Your task to perform on an android device: check data usage Image 0: 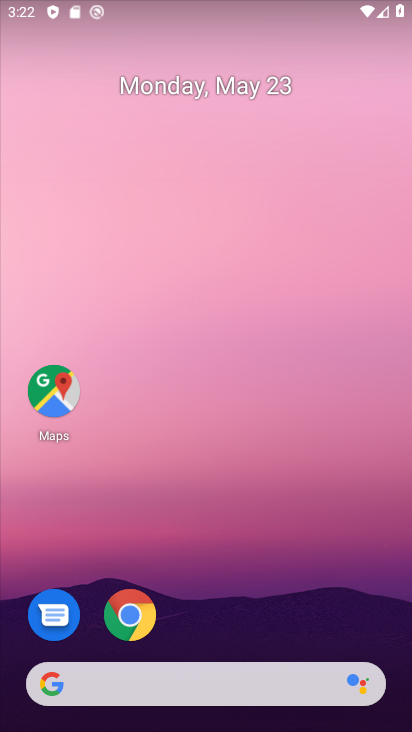
Step 0: drag from (372, 583) to (358, 129)
Your task to perform on an android device: check data usage Image 1: 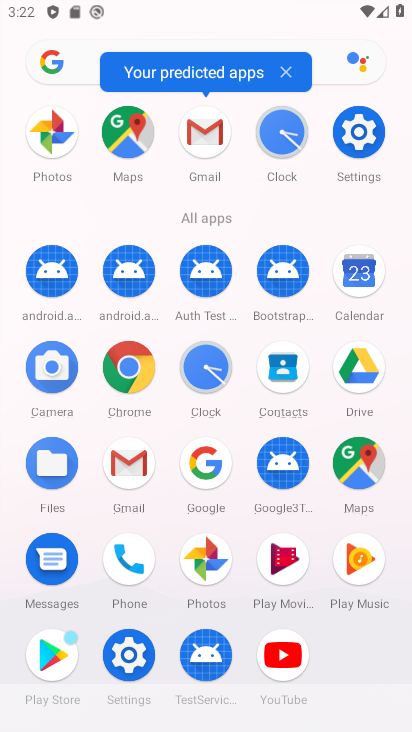
Step 1: click (135, 663)
Your task to perform on an android device: check data usage Image 2: 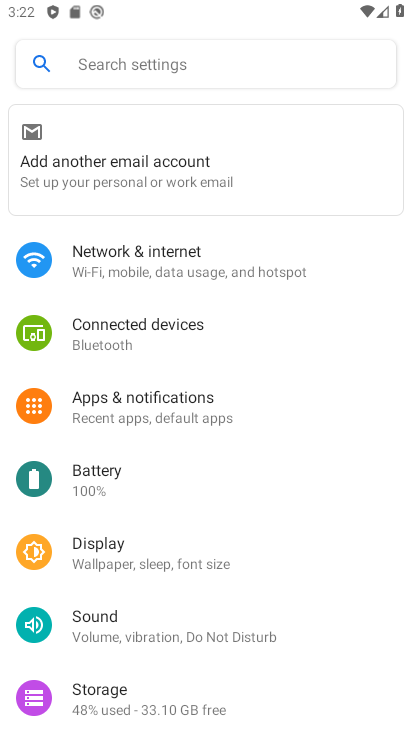
Step 2: drag from (358, 259) to (347, 414)
Your task to perform on an android device: check data usage Image 3: 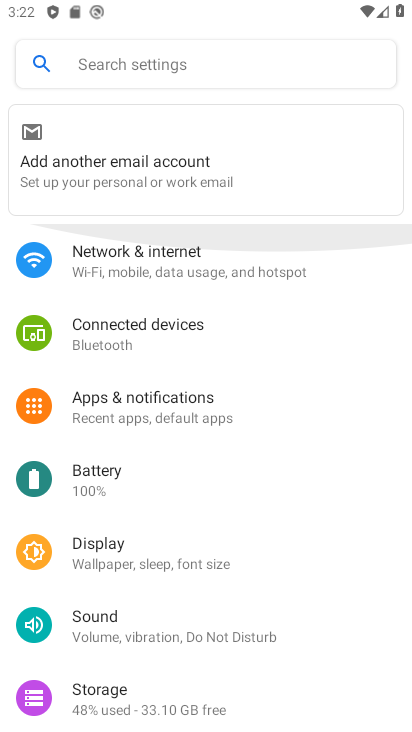
Step 3: drag from (351, 566) to (341, 420)
Your task to perform on an android device: check data usage Image 4: 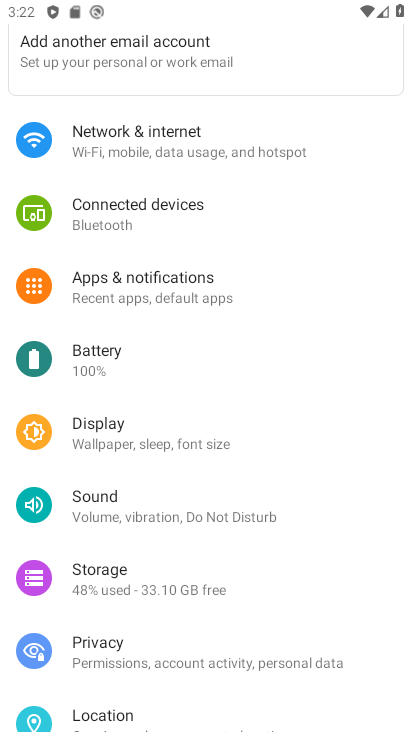
Step 4: drag from (374, 560) to (354, 405)
Your task to perform on an android device: check data usage Image 5: 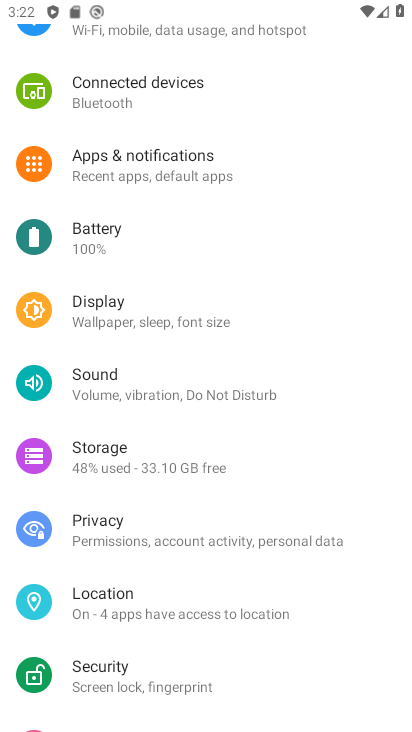
Step 5: drag from (340, 622) to (343, 505)
Your task to perform on an android device: check data usage Image 6: 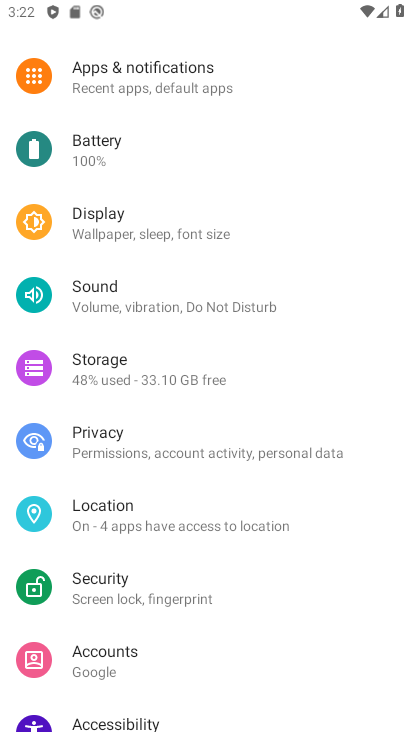
Step 6: drag from (338, 644) to (340, 544)
Your task to perform on an android device: check data usage Image 7: 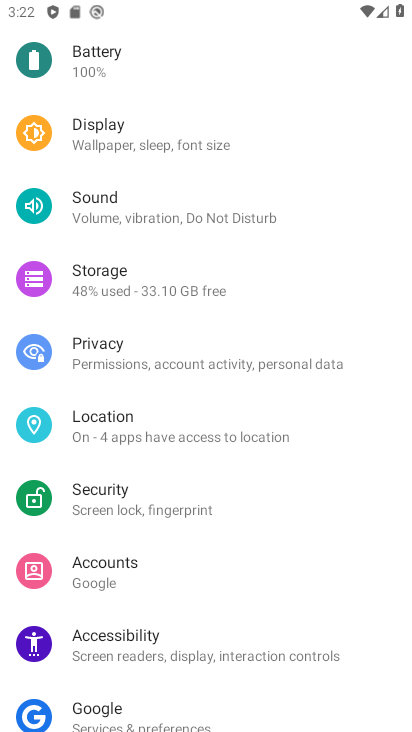
Step 7: drag from (376, 650) to (376, 505)
Your task to perform on an android device: check data usage Image 8: 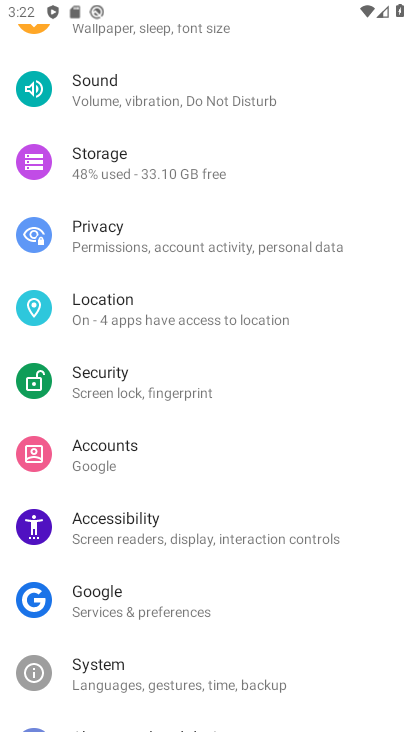
Step 8: drag from (361, 611) to (366, 478)
Your task to perform on an android device: check data usage Image 9: 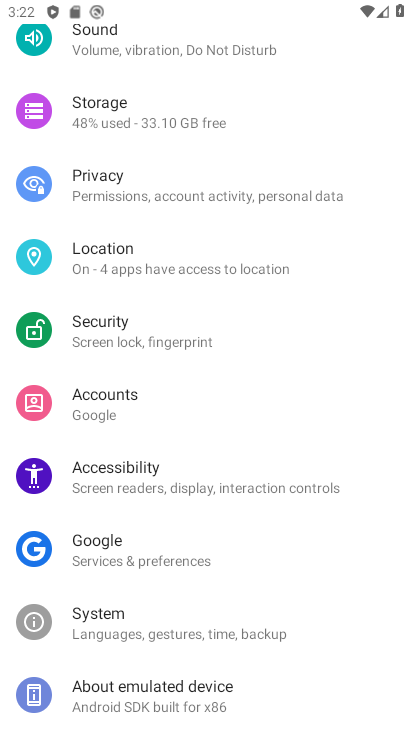
Step 9: drag from (350, 620) to (344, 451)
Your task to perform on an android device: check data usage Image 10: 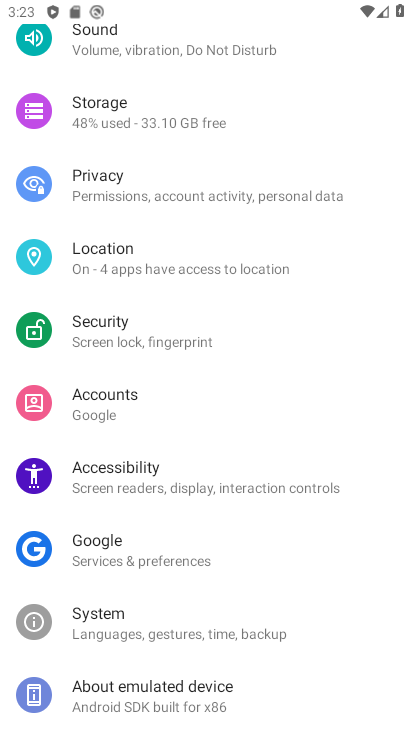
Step 10: drag from (354, 307) to (333, 459)
Your task to perform on an android device: check data usage Image 11: 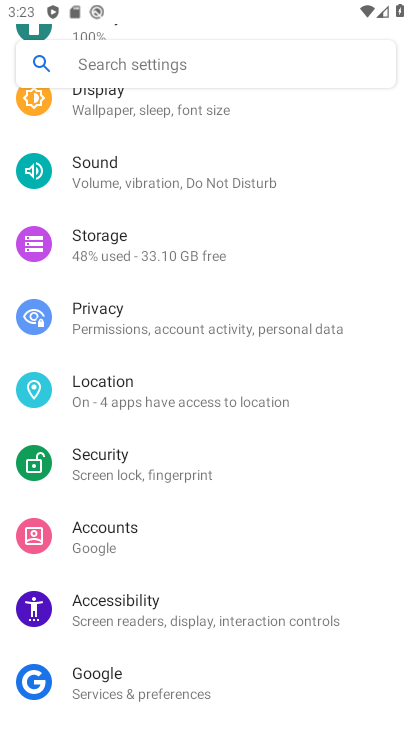
Step 11: drag from (325, 256) to (332, 405)
Your task to perform on an android device: check data usage Image 12: 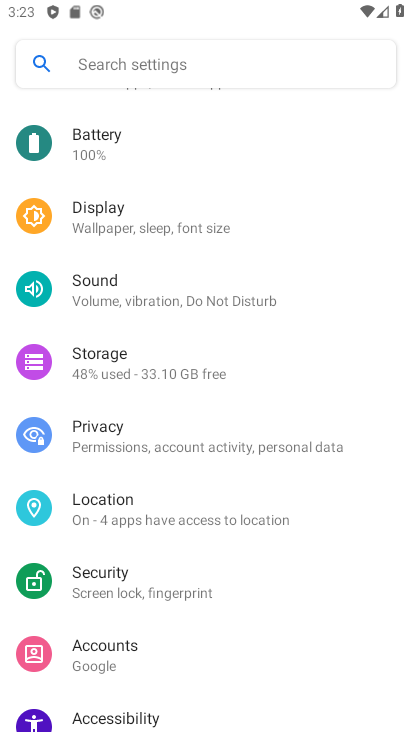
Step 12: drag from (315, 213) to (298, 377)
Your task to perform on an android device: check data usage Image 13: 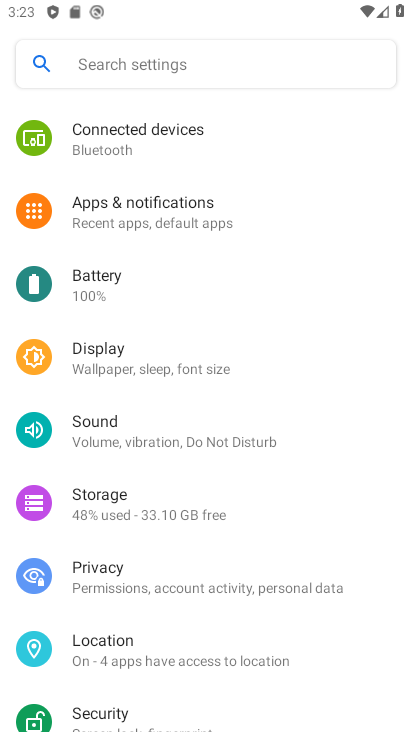
Step 13: click (224, 213)
Your task to perform on an android device: check data usage Image 14: 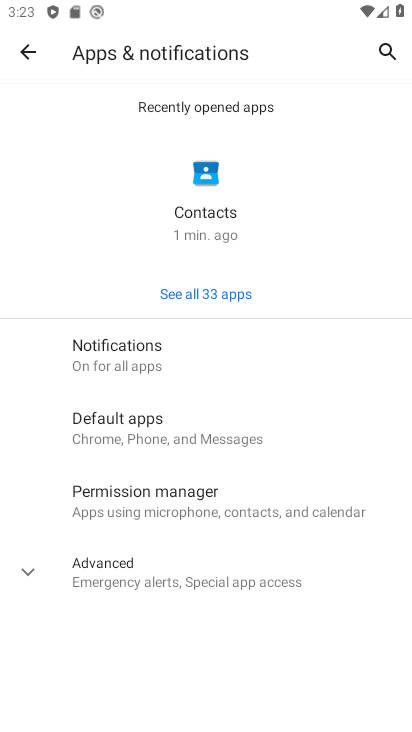
Step 14: press back button
Your task to perform on an android device: check data usage Image 15: 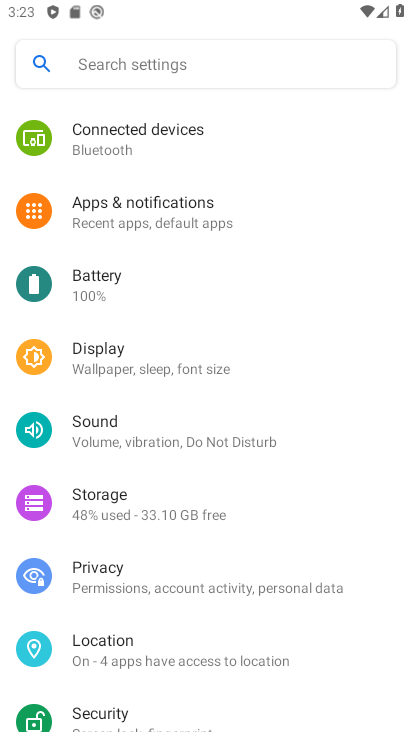
Step 15: drag from (346, 241) to (325, 420)
Your task to perform on an android device: check data usage Image 16: 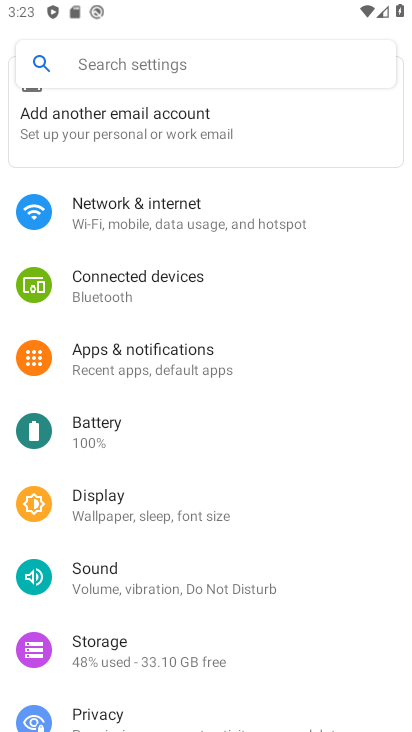
Step 16: click (252, 227)
Your task to perform on an android device: check data usage Image 17: 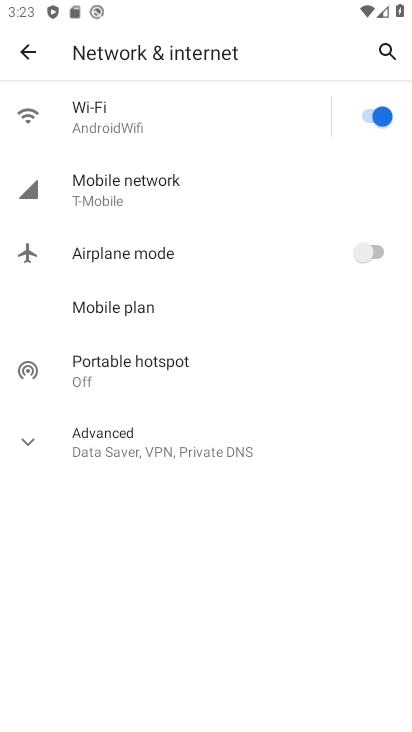
Step 17: click (159, 187)
Your task to perform on an android device: check data usage Image 18: 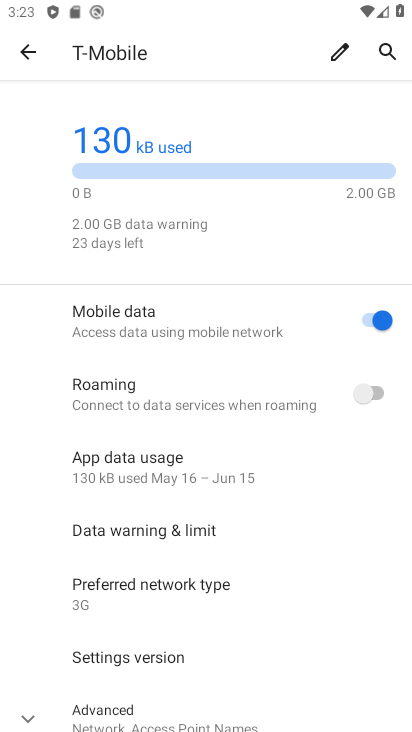
Step 18: click (187, 482)
Your task to perform on an android device: check data usage Image 19: 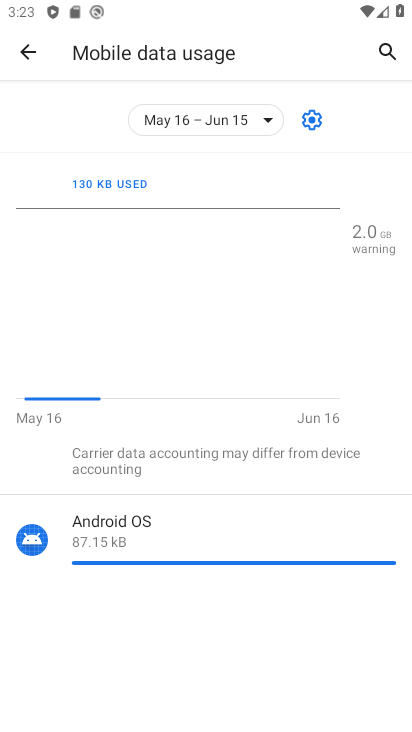
Step 19: task complete